Your task to perform on an android device: turn vacation reply on in the gmail app Image 0: 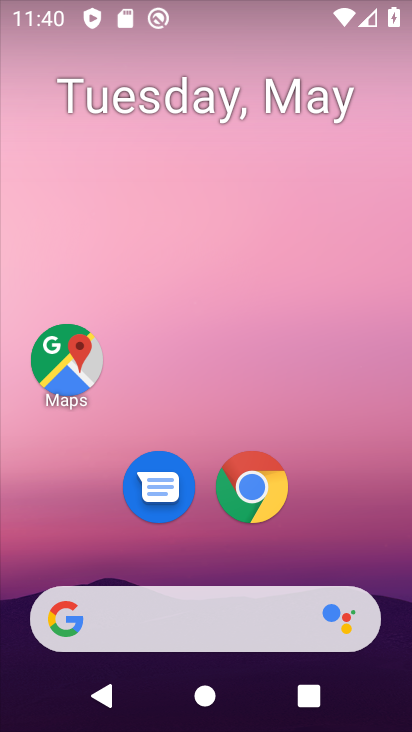
Step 0: drag from (222, 453) to (159, 110)
Your task to perform on an android device: turn vacation reply on in the gmail app Image 1: 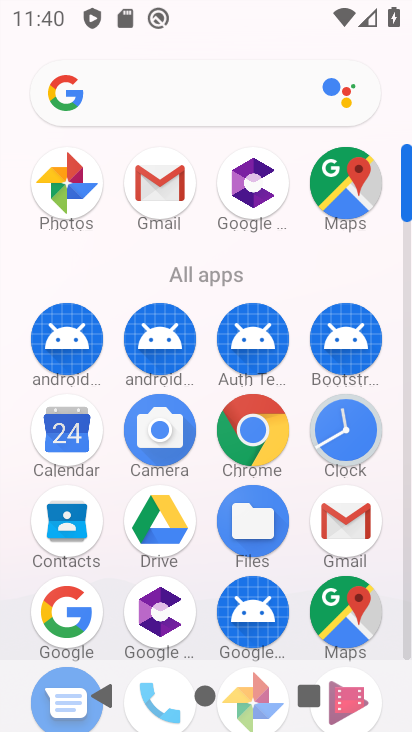
Step 1: click (167, 205)
Your task to perform on an android device: turn vacation reply on in the gmail app Image 2: 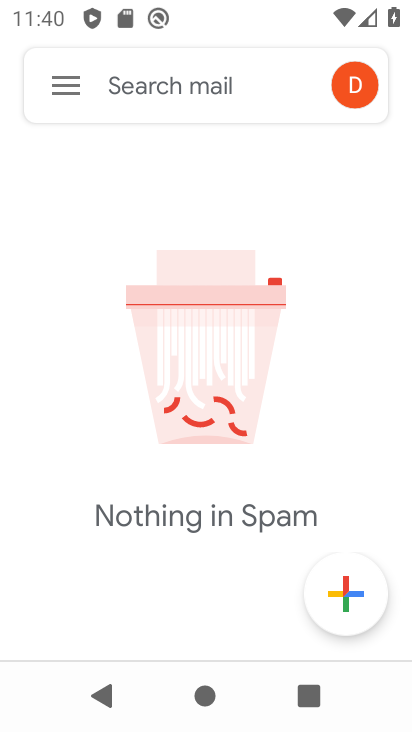
Step 2: click (53, 100)
Your task to perform on an android device: turn vacation reply on in the gmail app Image 3: 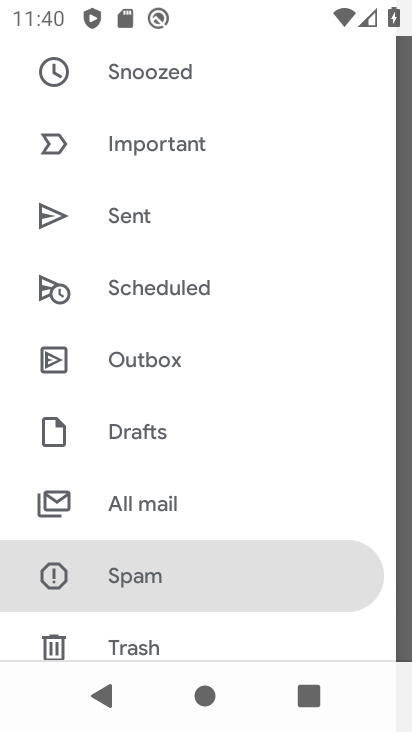
Step 3: drag from (196, 209) to (298, 538)
Your task to perform on an android device: turn vacation reply on in the gmail app Image 4: 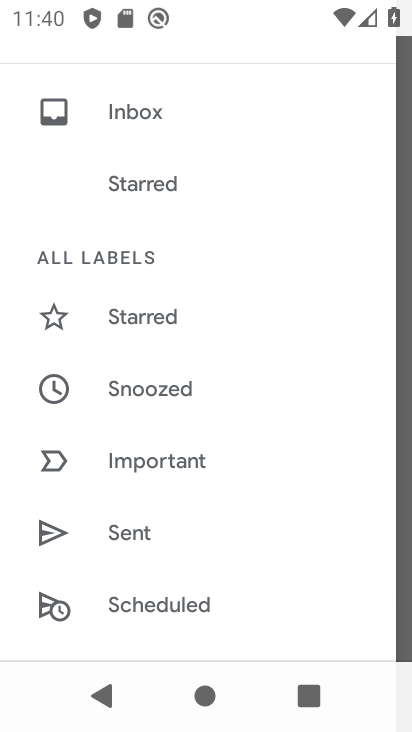
Step 4: drag from (154, 250) to (299, 648)
Your task to perform on an android device: turn vacation reply on in the gmail app Image 5: 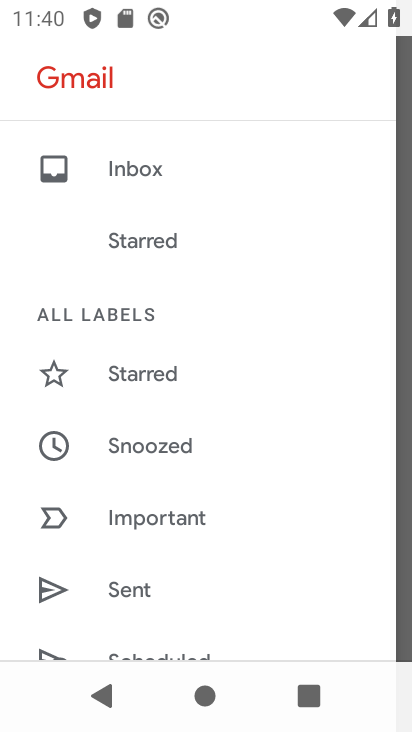
Step 5: drag from (227, 544) to (155, 228)
Your task to perform on an android device: turn vacation reply on in the gmail app Image 6: 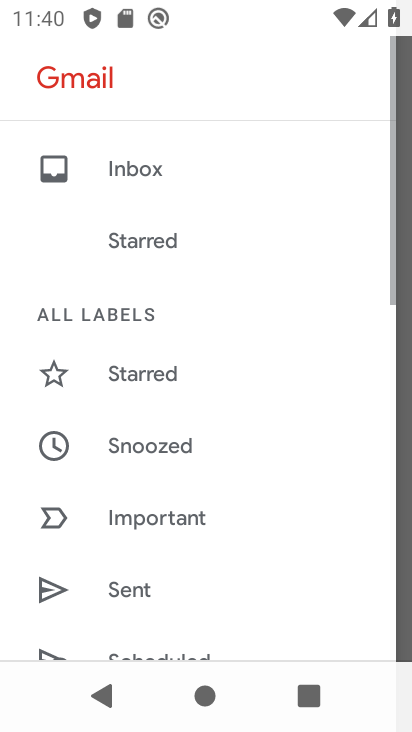
Step 6: drag from (214, 565) to (197, 130)
Your task to perform on an android device: turn vacation reply on in the gmail app Image 7: 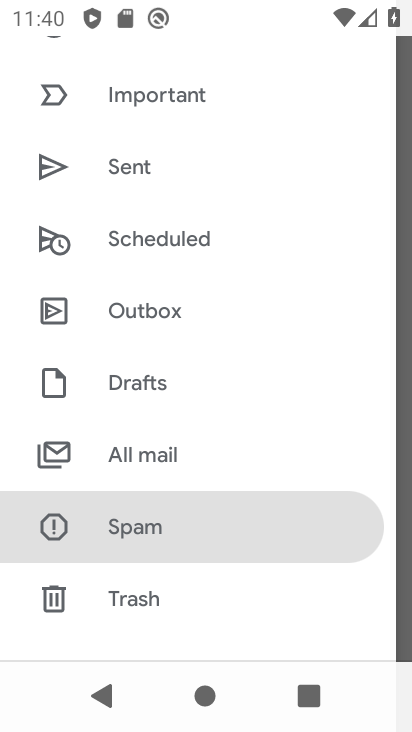
Step 7: drag from (202, 578) to (181, 190)
Your task to perform on an android device: turn vacation reply on in the gmail app Image 8: 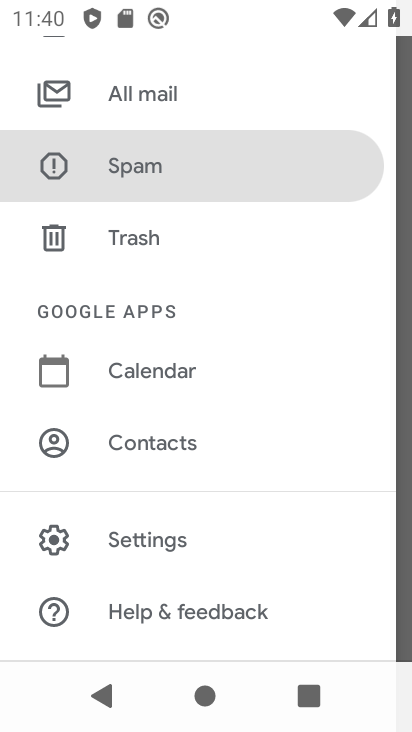
Step 8: click (134, 537)
Your task to perform on an android device: turn vacation reply on in the gmail app Image 9: 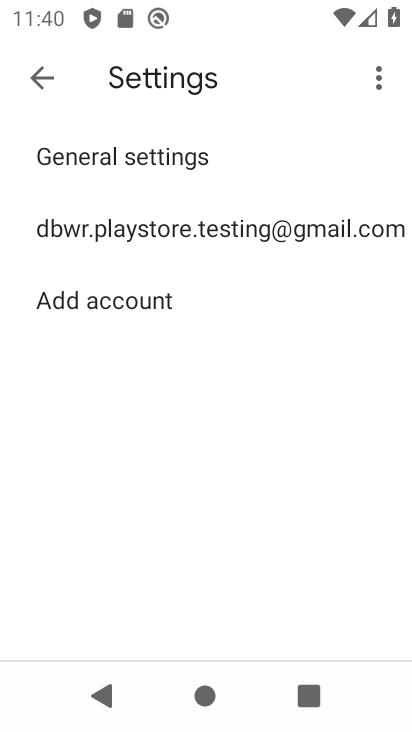
Step 9: click (379, 79)
Your task to perform on an android device: turn vacation reply on in the gmail app Image 10: 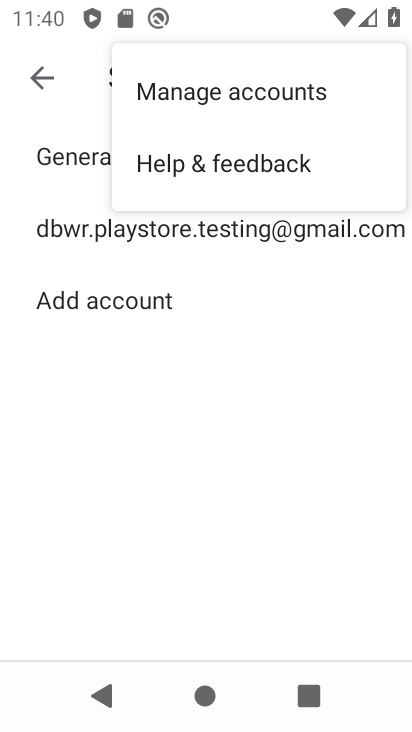
Step 10: task complete